Your task to perform on an android device: Open Google Chrome and open the bookmarks view Image 0: 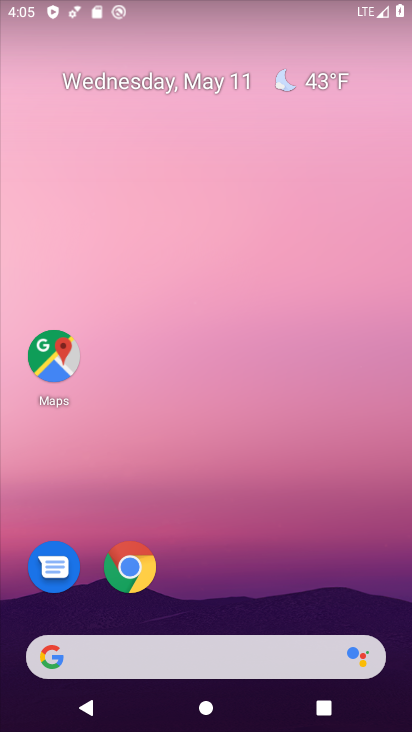
Step 0: click (144, 565)
Your task to perform on an android device: Open Google Chrome and open the bookmarks view Image 1: 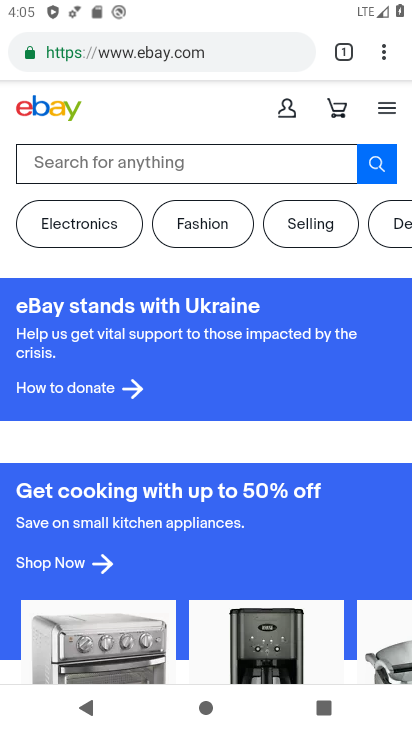
Step 1: click (378, 51)
Your task to perform on an android device: Open Google Chrome and open the bookmarks view Image 2: 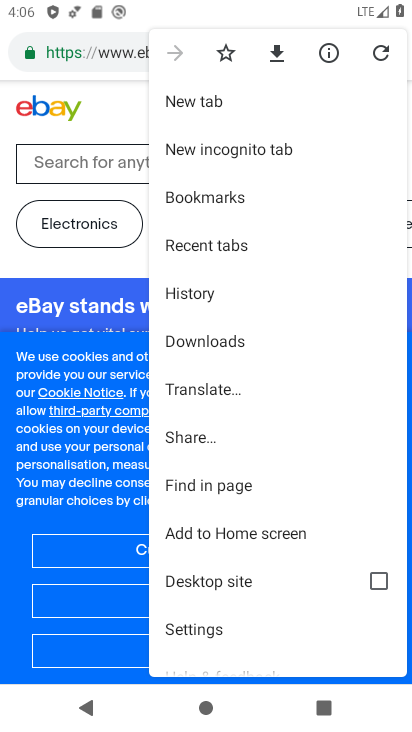
Step 2: click (221, 193)
Your task to perform on an android device: Open Google Chrome and open the bookmarks view Image 3: 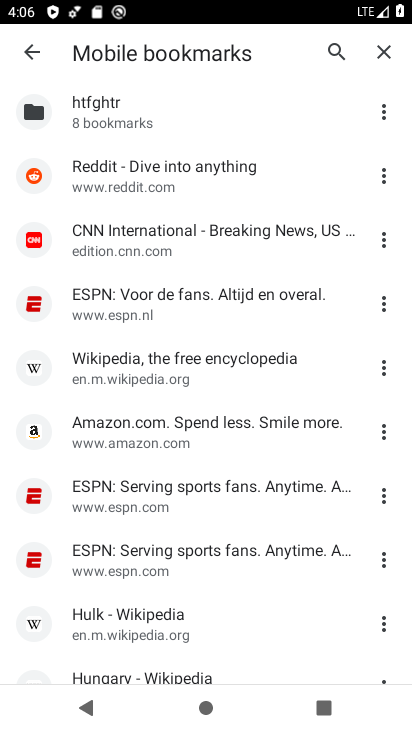
Step 3: task complete